Your task to perform on an android device: snooze an email in the gmail app Image 0: 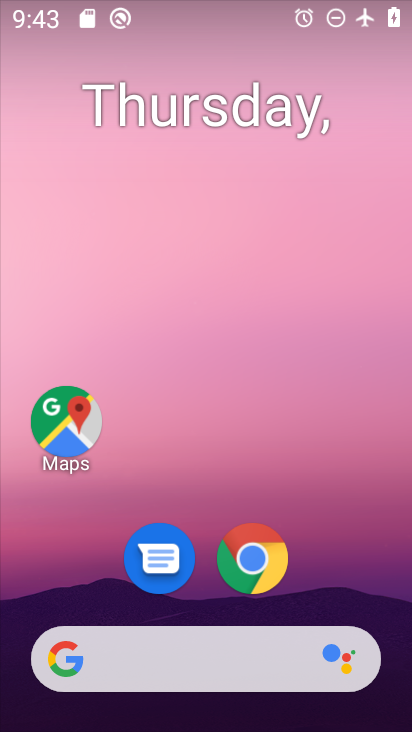
Step 0: drag from (394, 637) to (302, 75)
Your task to perform on an android device: snooze an email in the gmail app Image 1: 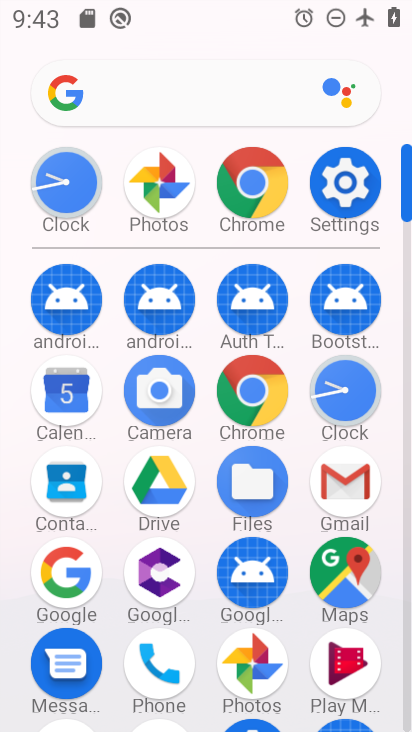
Step 1: click (408, 688)
Your task to perform on an android device: snooze an email in the gmail app Image 2: 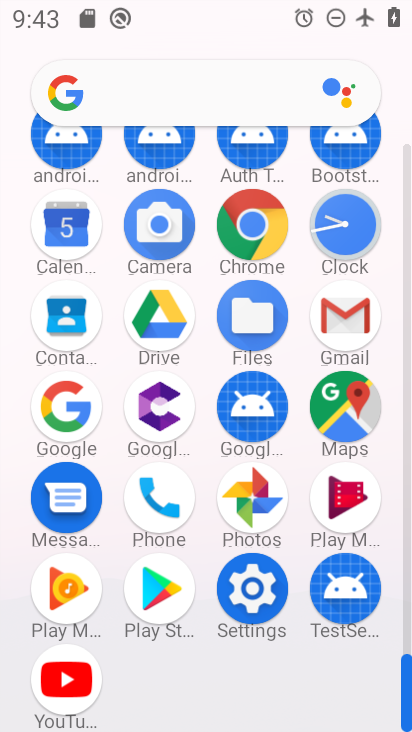
Step 2: click (344, 315)
Your task to perform on an android device: snooze an email in the gmail app Image 3: 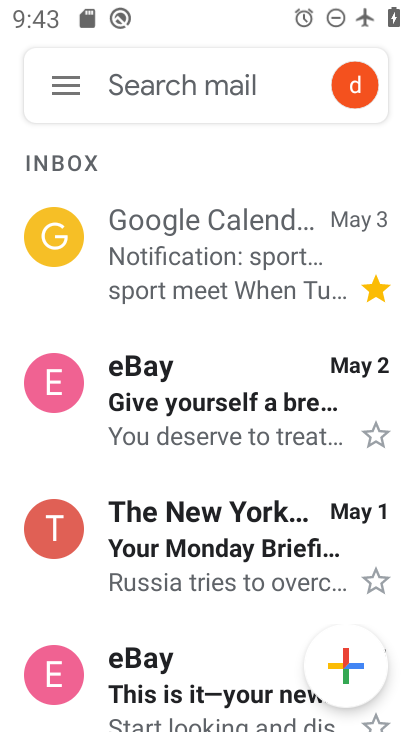
Step 3: click (70, 87)
Your task to perform on an android device: snooze an email in the gmail app Image 4: 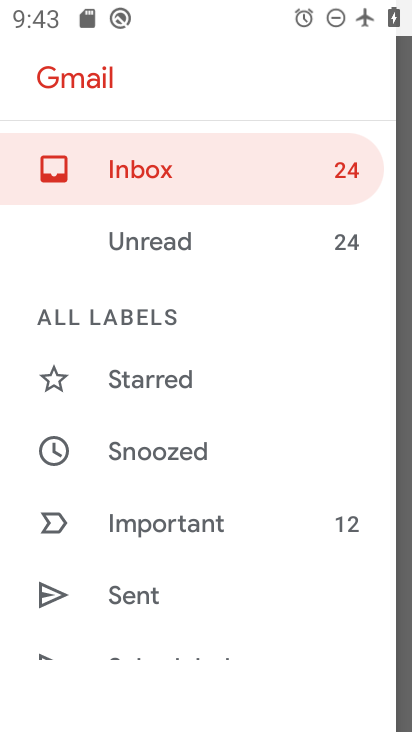
Step 4: click (148, 443)
Your task to perform on an android device: snooze an email in the gmail app Image 5: 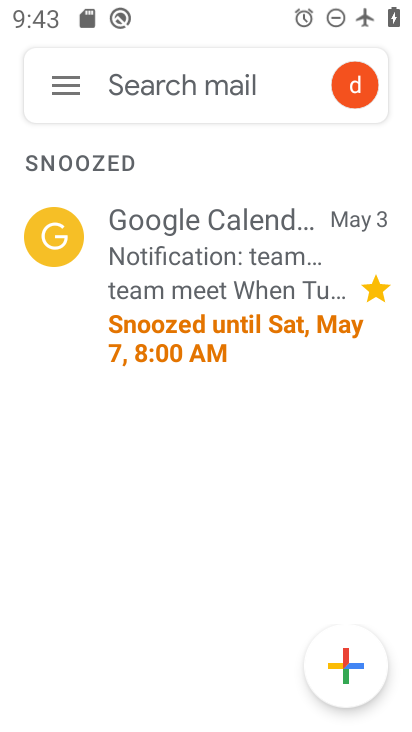
Step 5: click (66, 93)
Your task to perform on an android device: snooze an email in the gmail app Image 6: 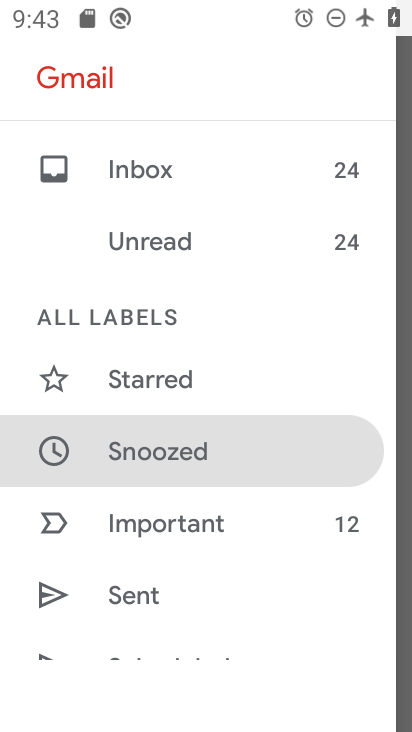
Step 6: click (170, 457)
Your task to perform on an android device: snooze an email in the gmail app Image 7: 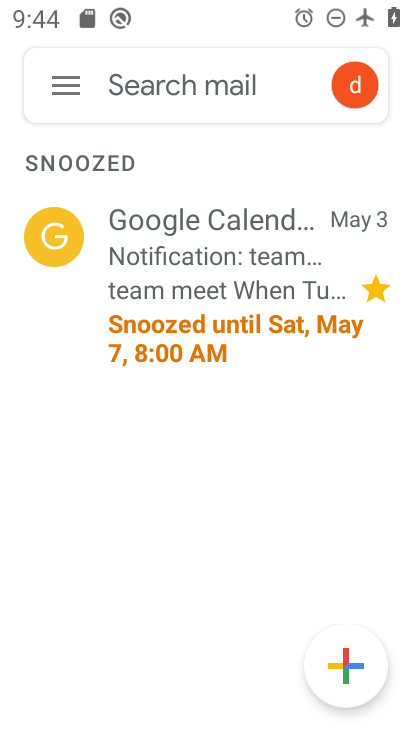
Step 7: click (69, 82)
Your task to perform on an android device: snooze an email in the gmail app Image 8: 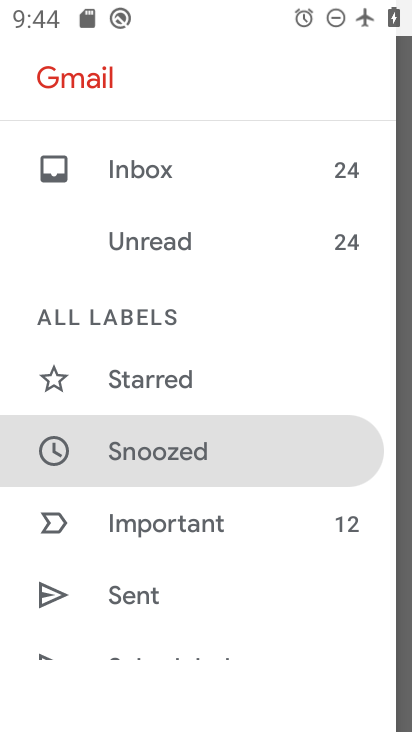
Step 8: click (151, 169)
Your task to perform on an android device: snooze an email in the gmail app Image 9: 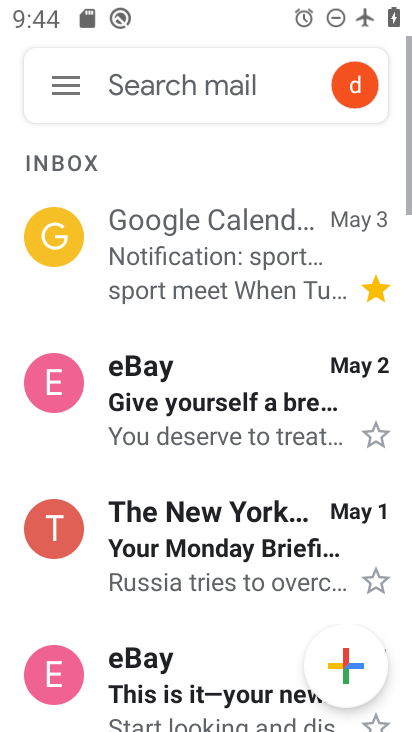
Step 9: click (190, 395)
Your task to perform on an android device: snooze an email in the gmail app Image 10: 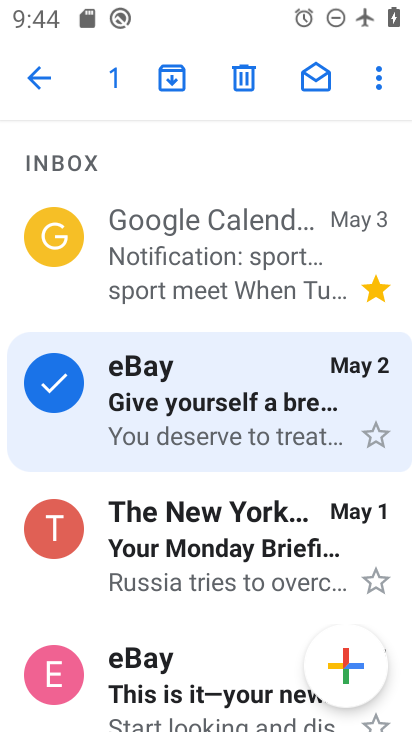
Step 10: click (370, 73)
Your task to perform on an android device: snooze an email in the gmail app Image 11: 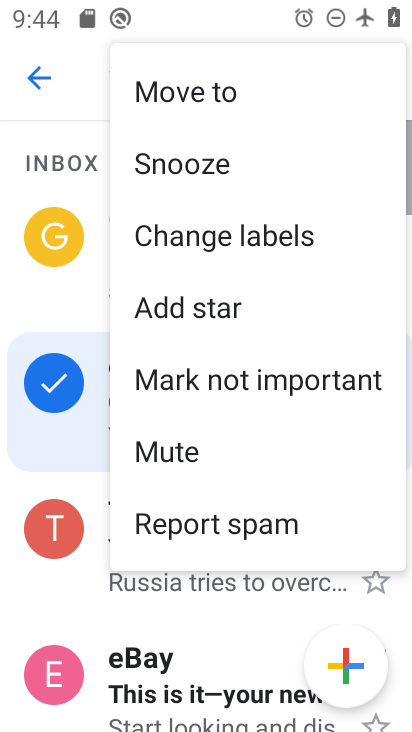
Step 11: click (171, 167)
Your task to perform on an android device: snooze an email in the gmail app Image 12: 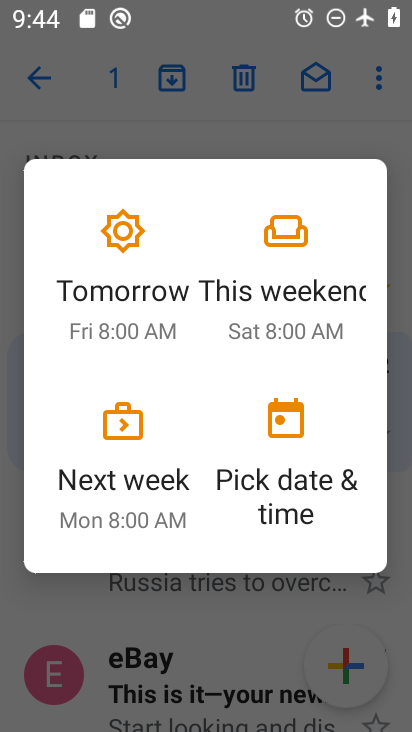
Step 12: click (90, 308)
Your task to perform on an android device: snooze an email in the gmail app Image 13: 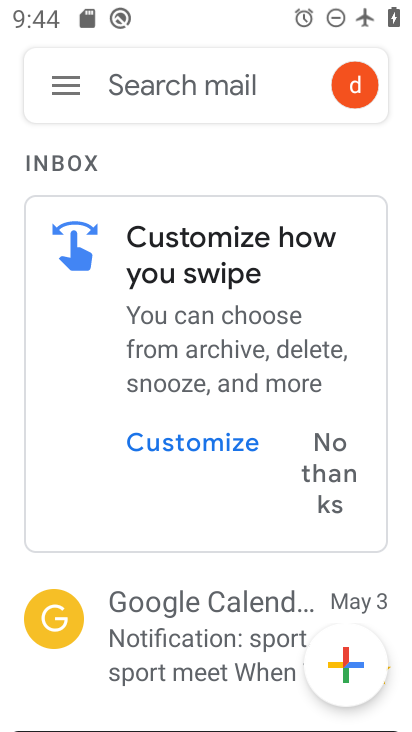
Step 13: task complete